Your task to perform on an android device: turn on data saver in the chrome app Image 0: 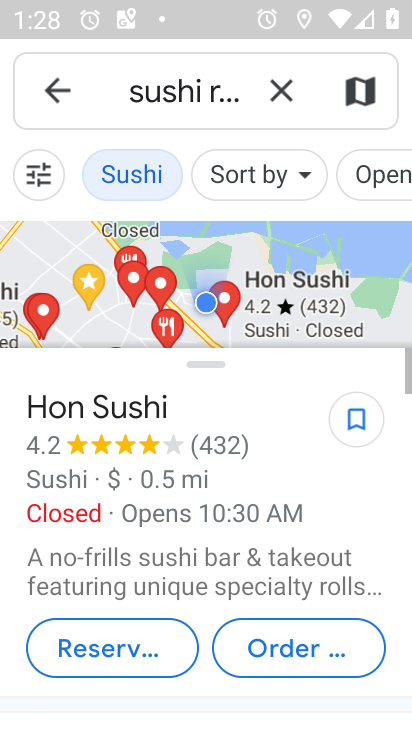
Step 0: press back button
Your task to perform on an android device: turn on data saver in the chrome app Image 1: 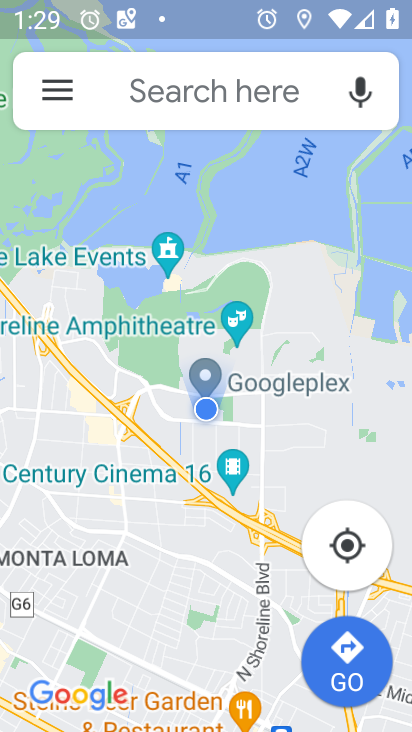
Step 1: press back button
Your task to perform on an android device: turn on data saver in the chrome app Image 2: 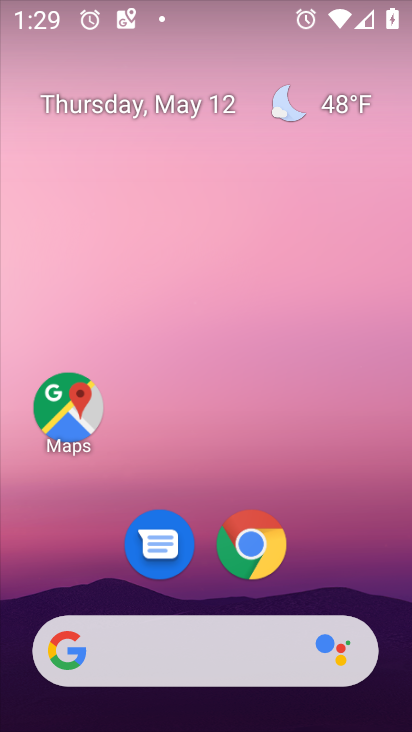
Step 2: drag from (397, 523) to (241, 4)
Your task to perform on an android device: turn on data saver in the chrome app Image 3: 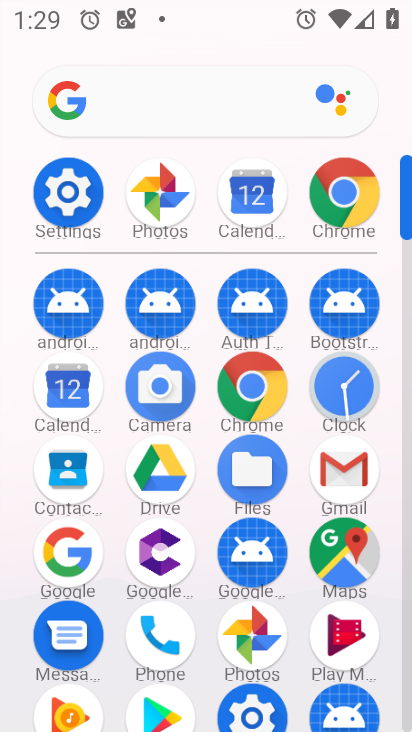
Step 3: drag from (2, 505) to (2, 216)
Your task to perform on an android device: turn on data saver in the chrome app Image 4: 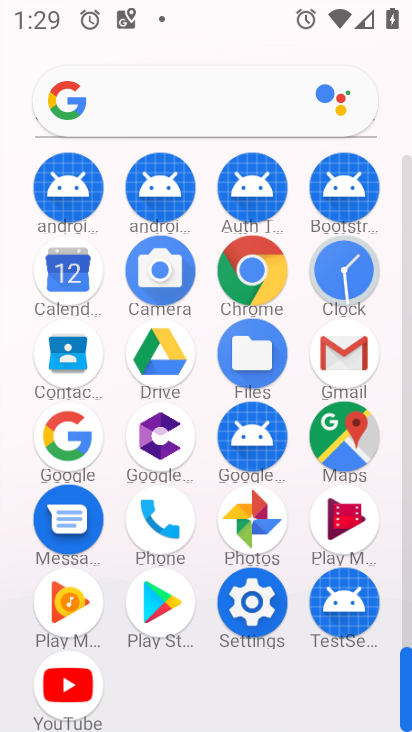
Step 4: click (249, 265)
Your task to perform on an android device: turn on data saver in the chrome app Image 5: 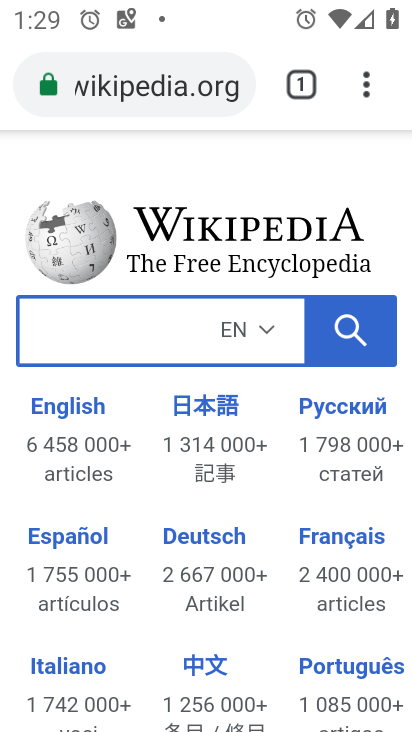
Step 5: drag from (365, 87) to (186, 605)
Your task to perform on an android device: turn on data saver in the chrome app Image 6: 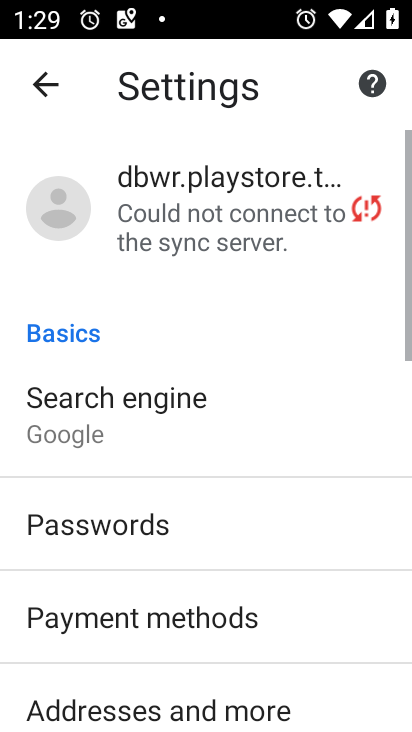
Step 6: drag from (228, 579) to (223, 217)
Your task to perform on an android device: turn on data saver in the chrome app Image 7: 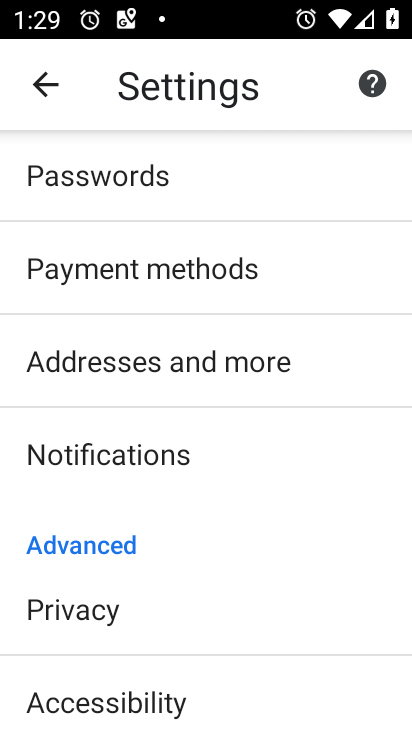
Step 7: drag from (217, 551) to (252, 167)
Your task to perform on an android device: turn on data saver in the chrome app Image 8: 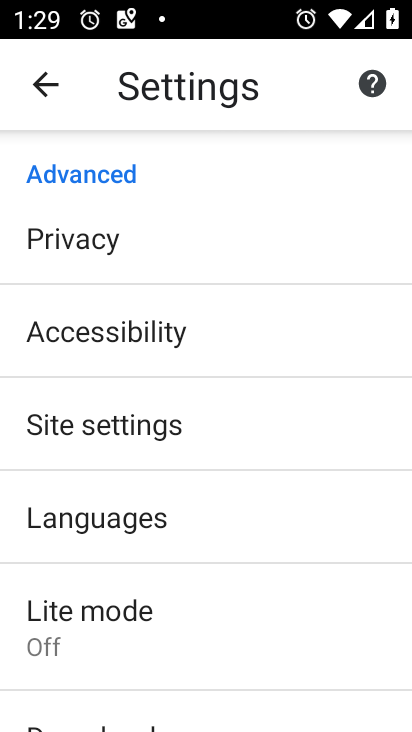
Step 8: drag from (160, 617) to (202, 305)
Your task to perform on an android device: turn on data saver in the chrome app Image 9: 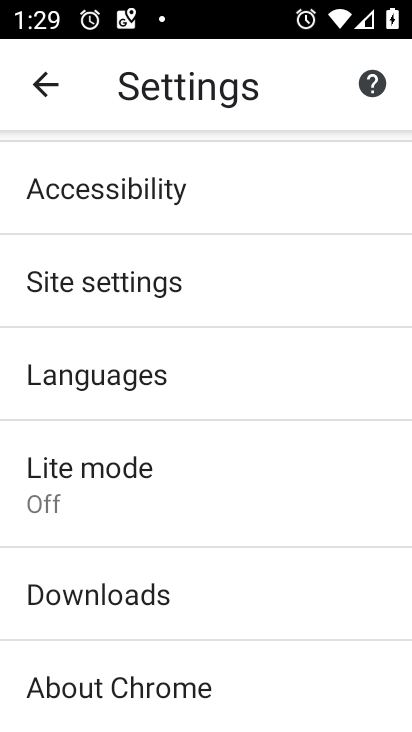
Step 9: click (200, 472)
Your task to perform on an android device: turn on data saver in the chrome app Image 10: 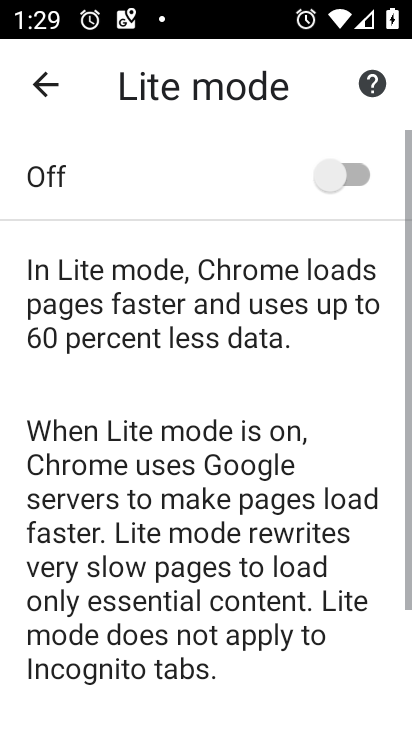
Step 10: click (339, 173)
Your task to perform on an android device: turn on data saver in the chrome app Image 11: 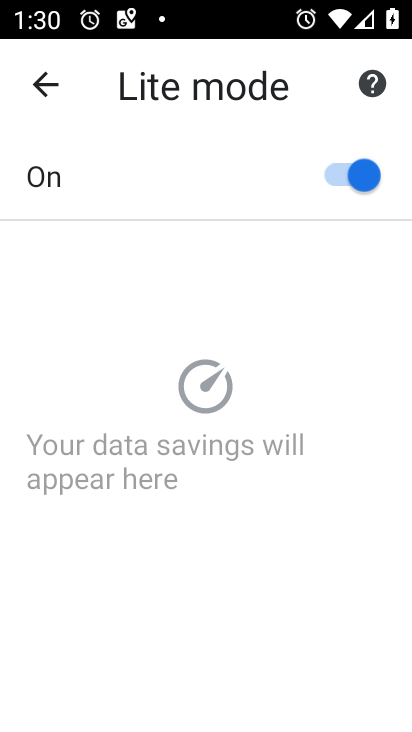
Step 11: task complete